Your task to perform on an android device: Check the weather Image 0: 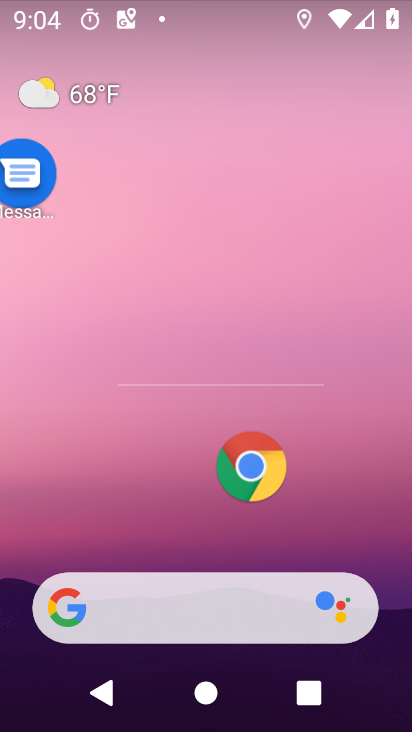
Step 0: drag from (193, 522) to (218, 71)
Your task to perform on an android device: Check the weather Image 1: 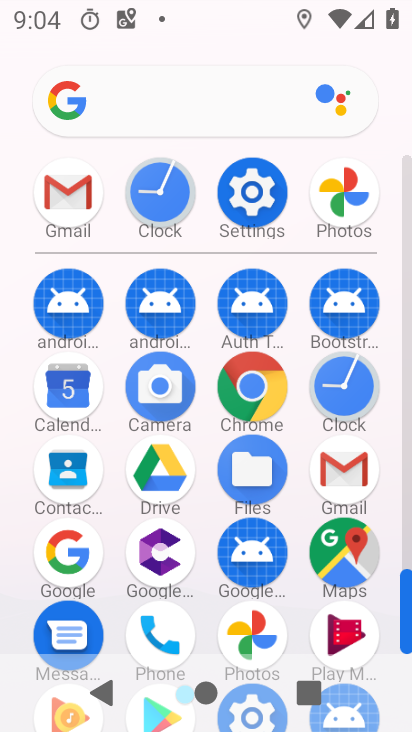
Step 1: click (128, 101)
Your task to perform on an android device: Check the weather Image 2: 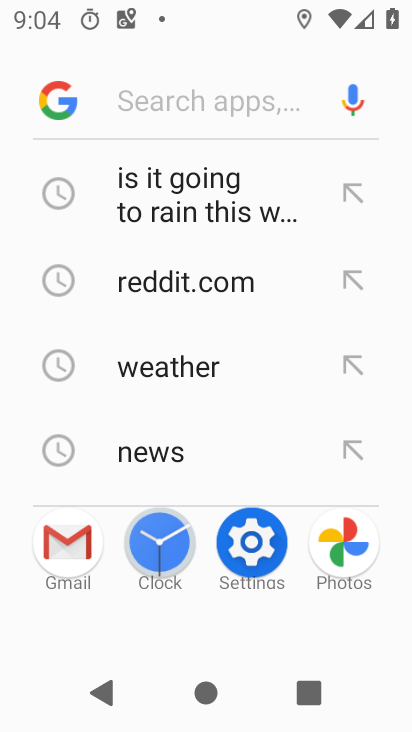
Step 2: click (157, 387)
Your task to perform on an android device: Check the weather Image 3: 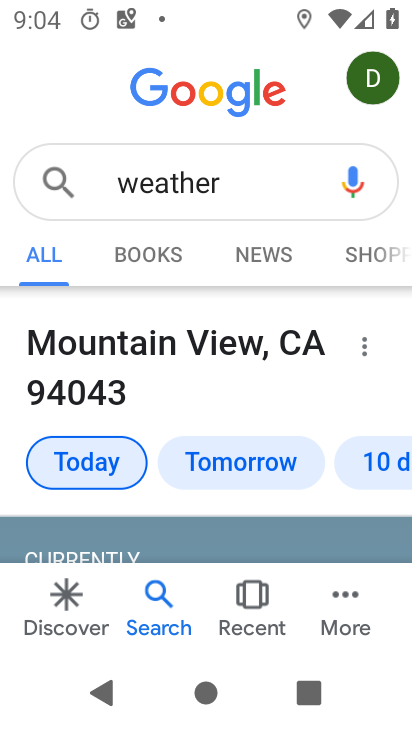
Step 3: task complete